Your task to perform on an android device: search for starred emails in the gmail app Image 0: 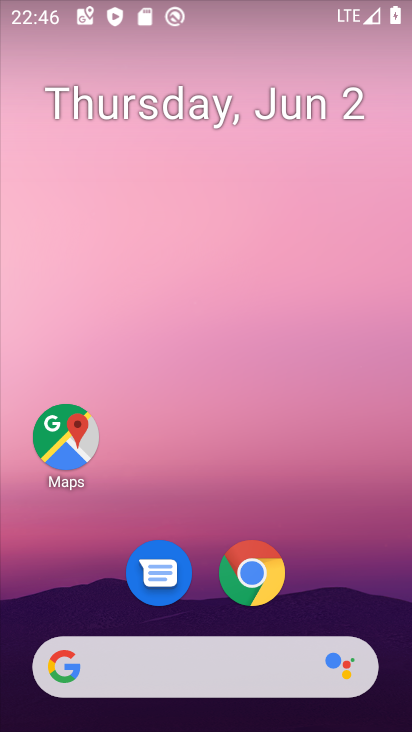
Step 0: drag from (337, 593) to (378, 158)
Your task to perform on an android device: search for starred emails in the gmail app Image 1: 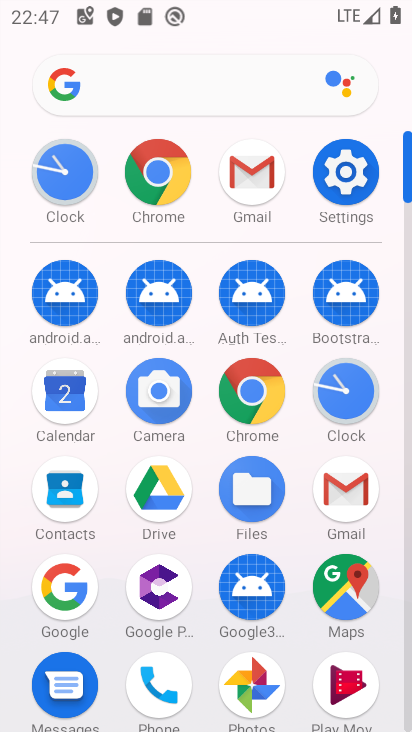
Step 1: click (353, 485)
Your task to perform on an android device: search for starred emails in the gmail app Image 2: 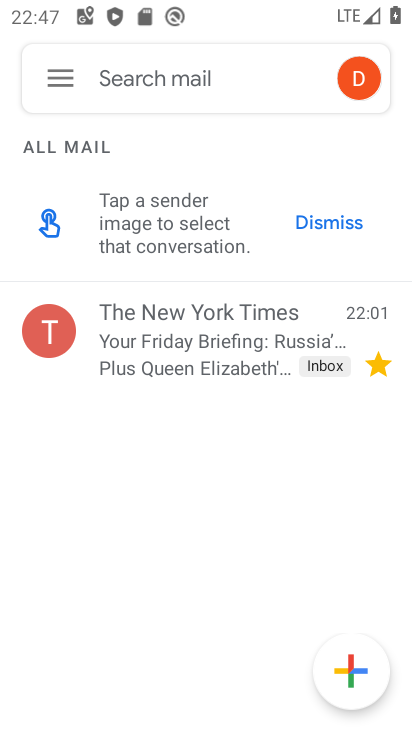
Step 2: click (65, 76)
Your task to perform on an android device: search for starred emails in the gmail app Image 3: 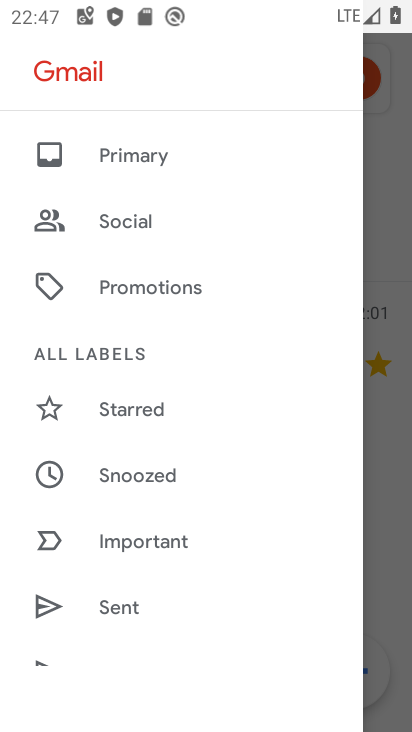
Step 3: click (135, 405)
Your task to perform on an android device: search for starred emails in the gmail app Image 4: 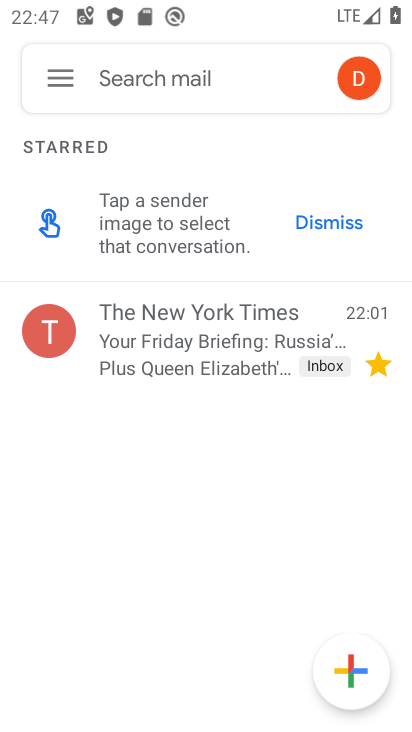
Step 4: task complete